Your task to perform on an android device: turn on javascript in the chrome app Image 0: 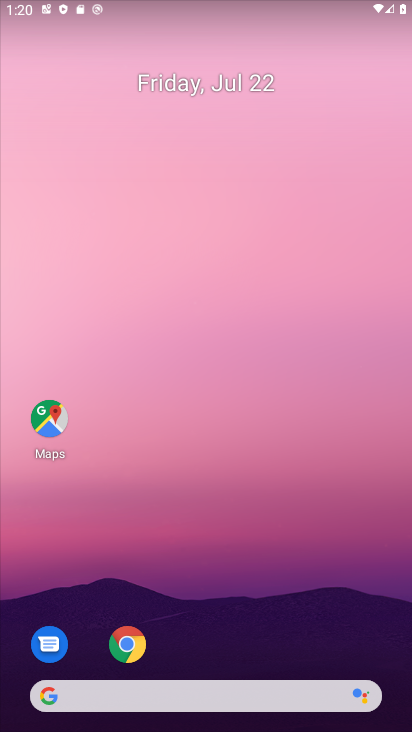
Step 0: press home button
Your task to perform on an android device: turn on javascript in the chrome app Image 1: 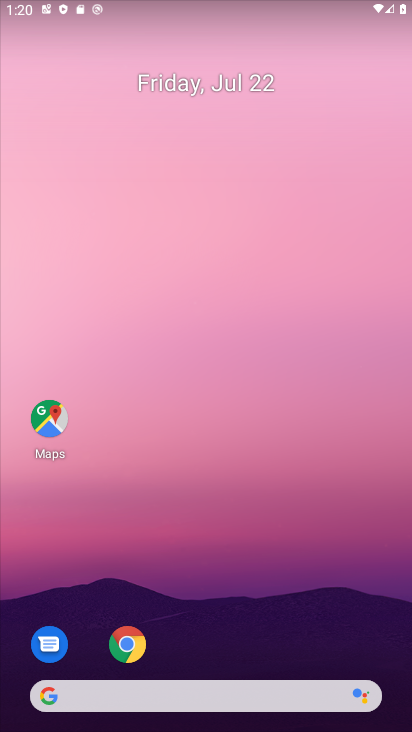
Step 1: click (124, 641)
Your task to perform on an android device: turn on javascript in the chrome app Image 2: 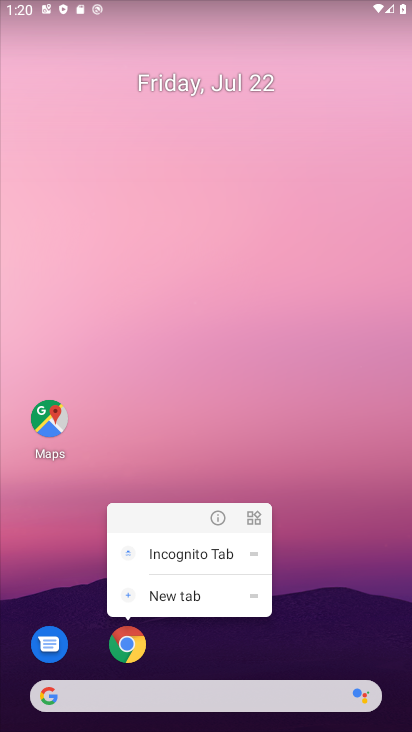
Step 2: click (129, 642)
Your task to perform on an android device: turn on javascript in the chrome app Image 3: 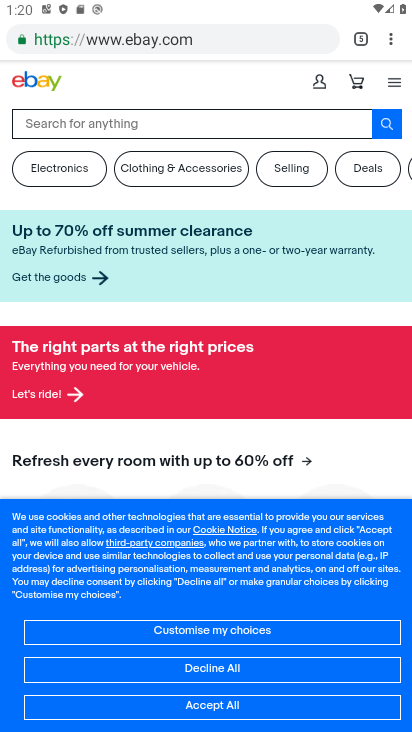
Step 3: click (389, 36)
Your task to perform on an android device: turn on javascript in the chrome app Image 4: 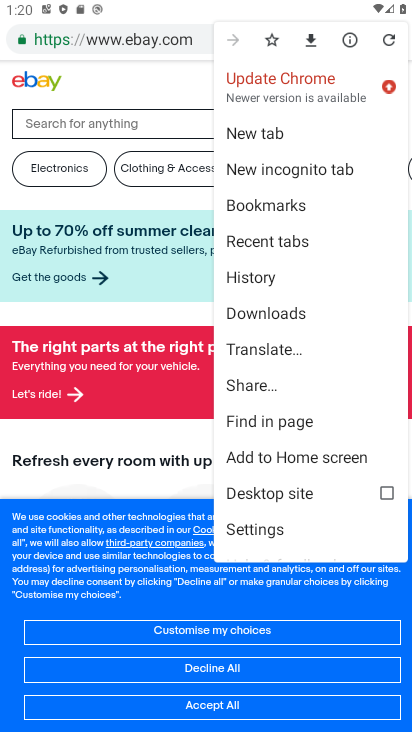
Step 4: click (282, 530)
Your task to perform on an android device: turn on javascript in the chrome app Image 5: 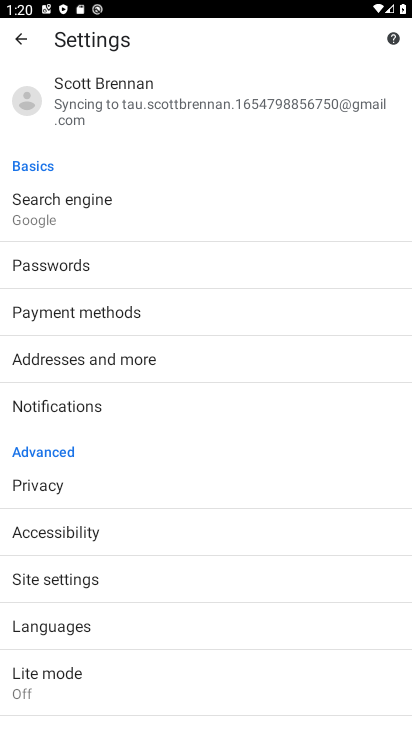
Step 5: click (127, 580)
Your task to perform on an android device: turn on javascript in the chrome app Image 6: 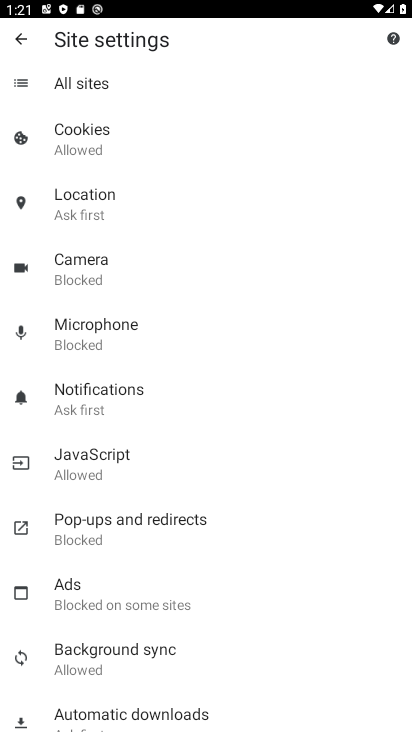
Step 6: click (143, 456)
Your task to perform on an android device: turn on javascript in the chrome app Image 7: 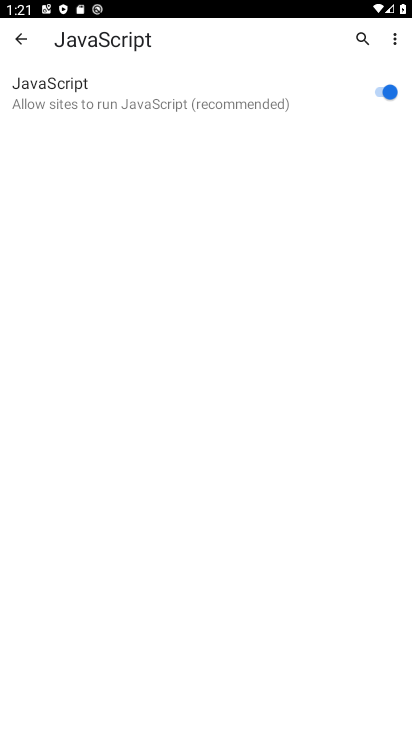
Step 7: task complete